Your task to perform on an android device: Go to calendar. Show me events next week Image 0: 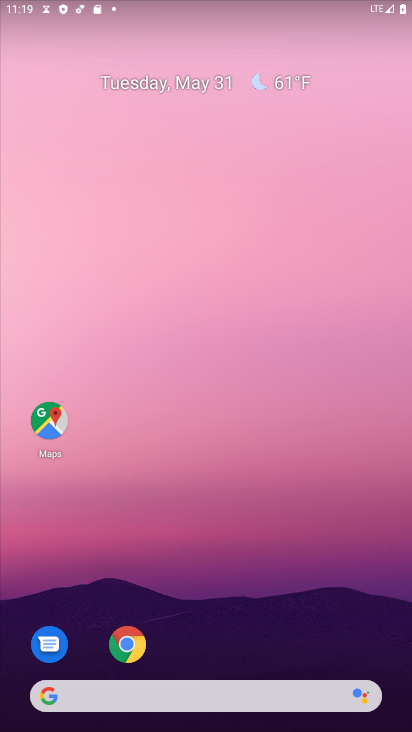
Step 0: drag from (190, 379) to (190, 165)
Your task to perform on an android device: Go to calendar. Show me events next week Image 1: 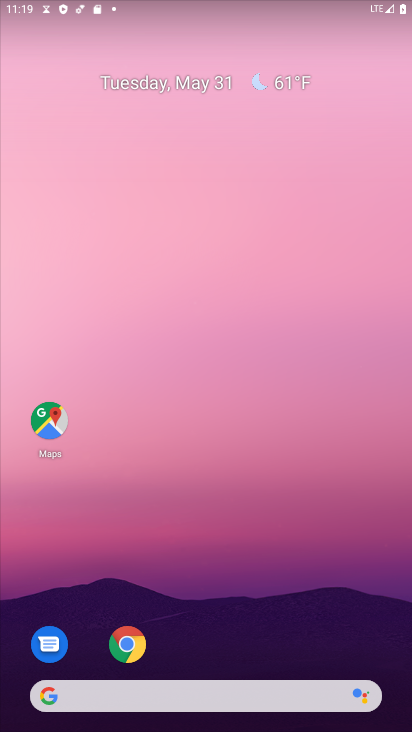
Step 1: drag from (224, 485) to (286, 37)
Your task to perform on an android device: Go to calendar. Show me events next week Image 2: 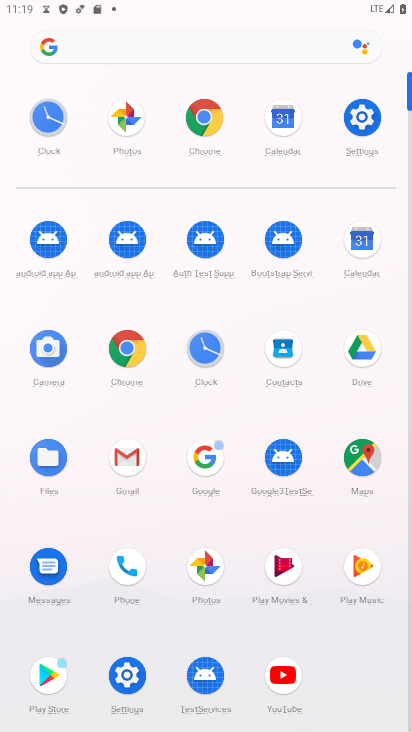
Step 2: click (359, 245)
Your task to perform on an android device: Go to calendar. Show me events next week Image 3: 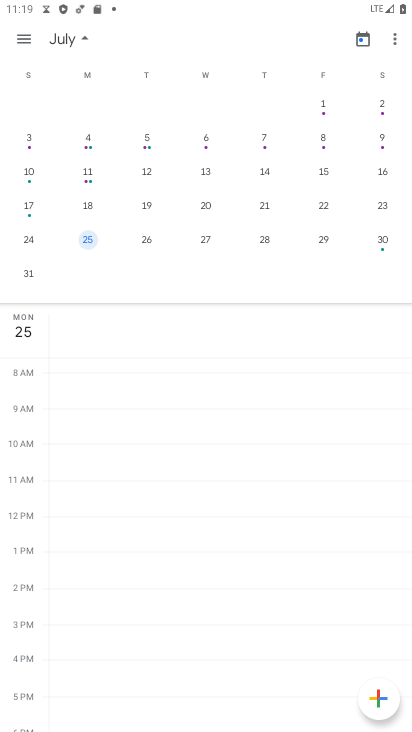
Step 3: drag from (63, 174) to (396, 179)
Your task to perform on an android device: Go to calendar. Show me events next week Image 4: 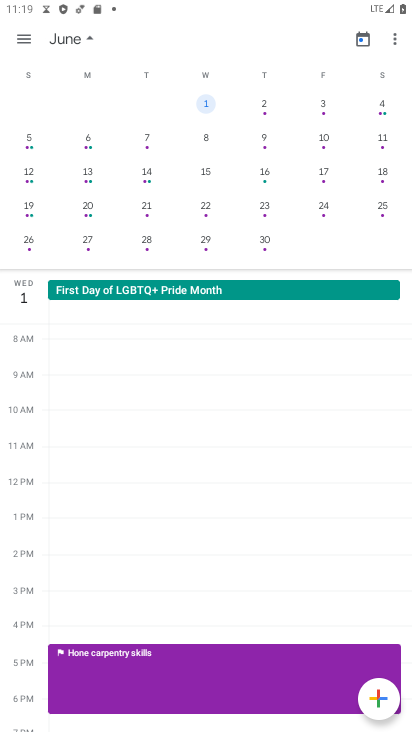
Step 4: click (90, 137)
Your task to perform on an android device: Go to calendar. Show me events next week Image 5: 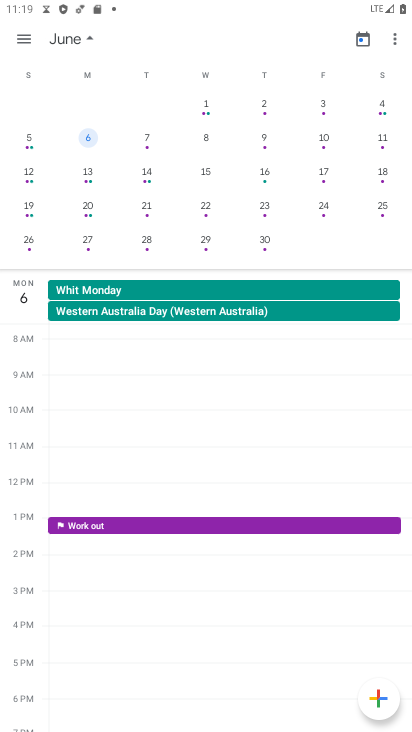
Step 5: click (16, 44)
Your task to perform on an android device: Go to calendar. Show me events next week Image 6: 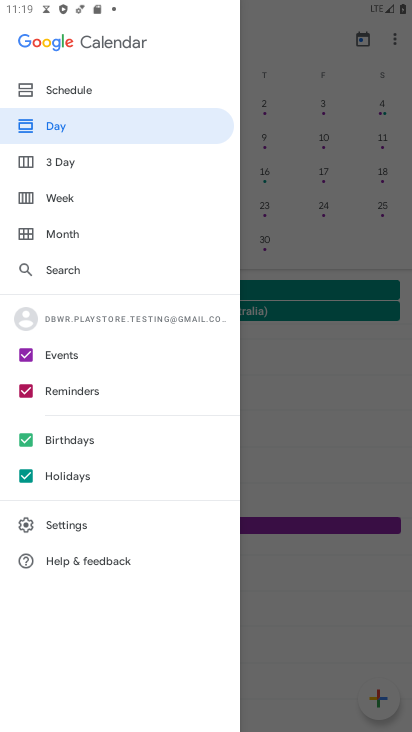
Step 6: click (70, 87)
Your task to perform on an android device: Go to calendar. Show me events next week Image 7: 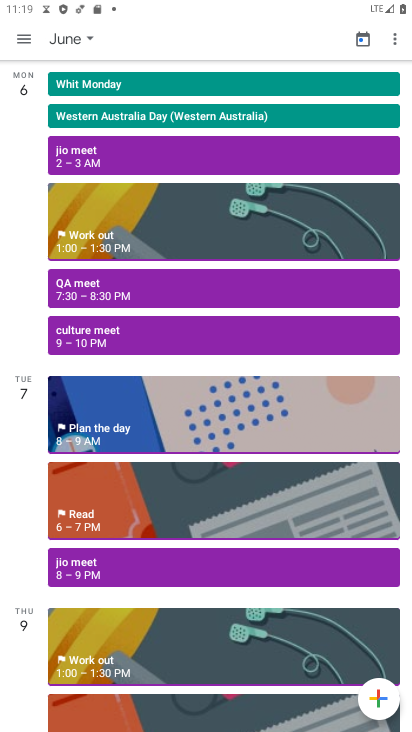
Step 7: drag from (102, 577) to (138, 375)
Your task to perform on an android device: Go to calendar. Show me events next week Image 8: 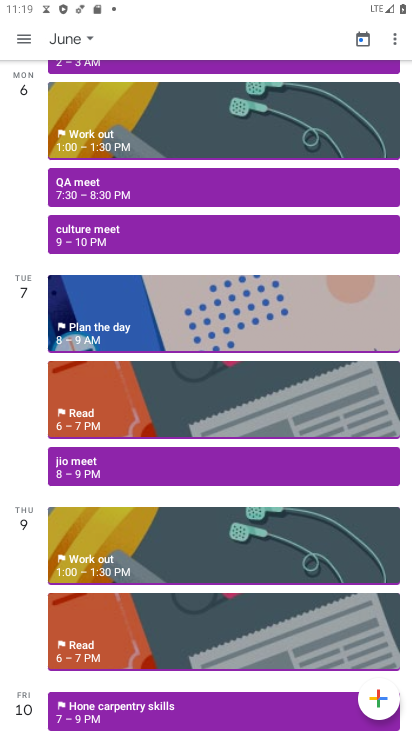
Step 8: click (95, 463)
Your task to perform on an android device: Go to calendar. Show me events next week Image 9: 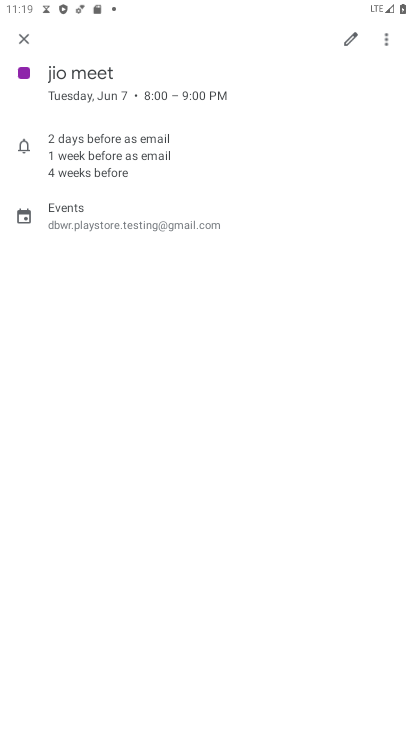
Step 9: task complete